Your task to perform on an android device: toggle notification dots Image 0: 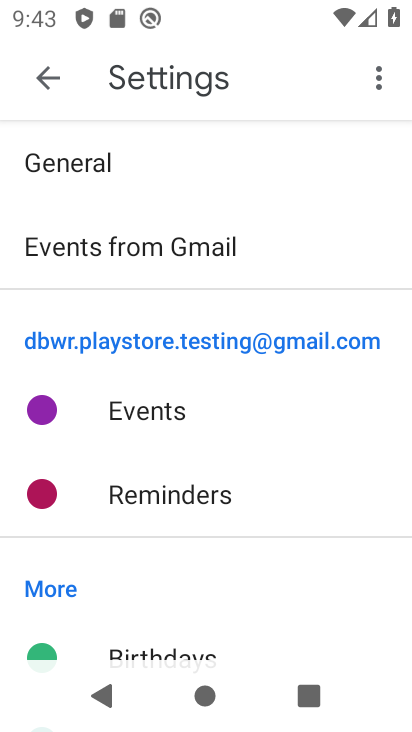
Step 0: press home button
Your task to perform on an android device: toggle notification dots Image 1: 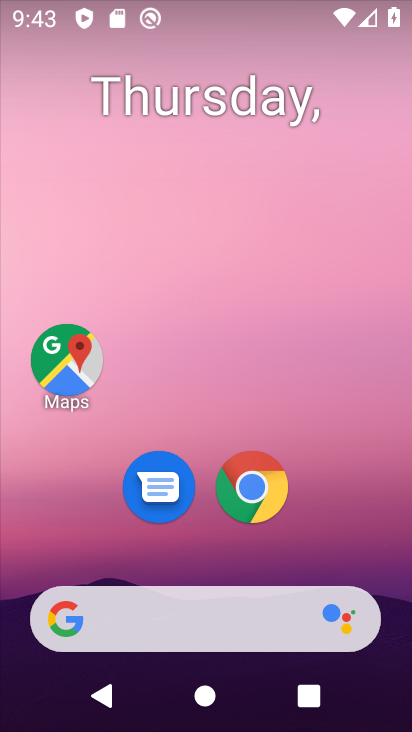
Step 1: drag from (328, 524) to (77, 123)
Your task to perform on an android device: toggle notification dots Image 2: 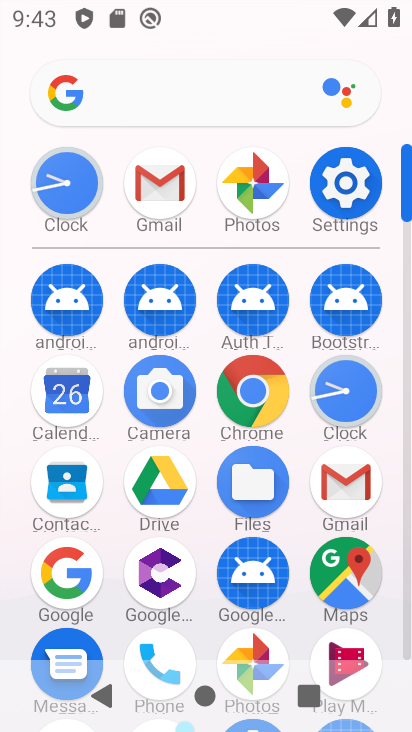
Step 2: click (349, 178)
Your task to perform on an android device: toggle notification dots Image 3: 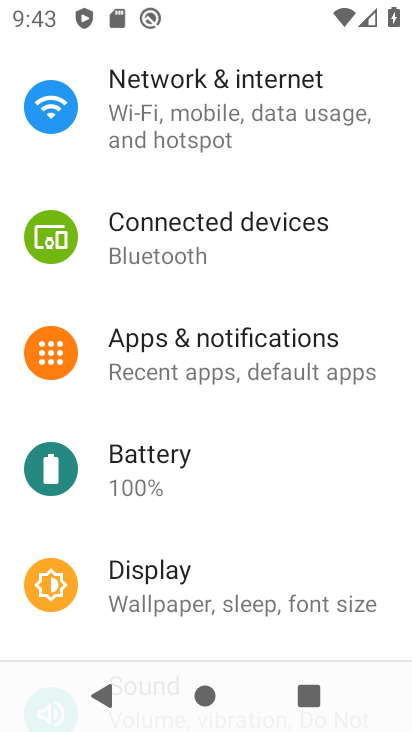
Step 3: click (214, 361)
Your task to perform on an android device: toggle notification dots Image 4: 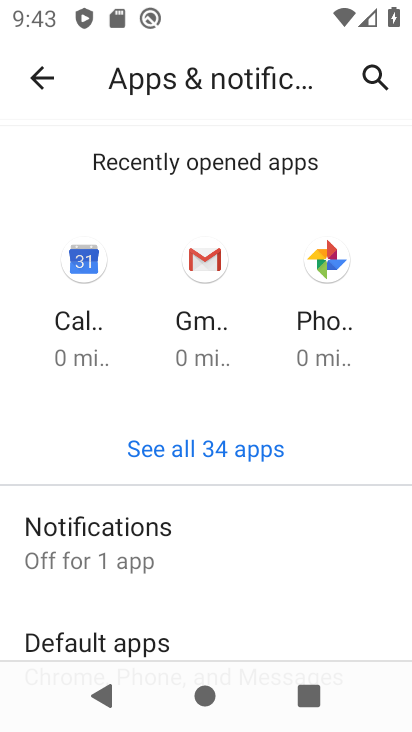
Step 4: drag from (193, 586) to (180, 325)
Your task to perform on an android device: toggle notification dots Image 5: 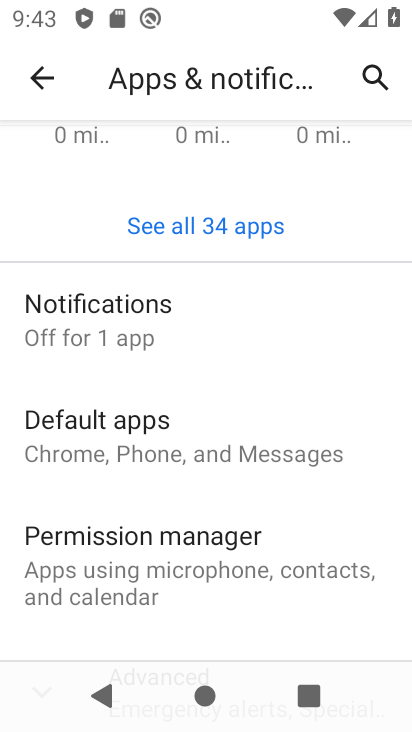
Step 5: click (125, 337)
Your task to perform on an android device: toggle notification dots Image 6: 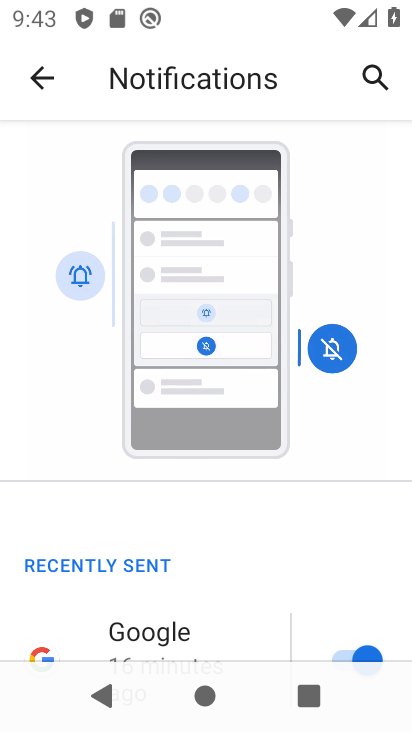
Step 6: drag from (106, 576) to (55, 182)
Your task to perform on an android device: toggle notification dots Image 7: 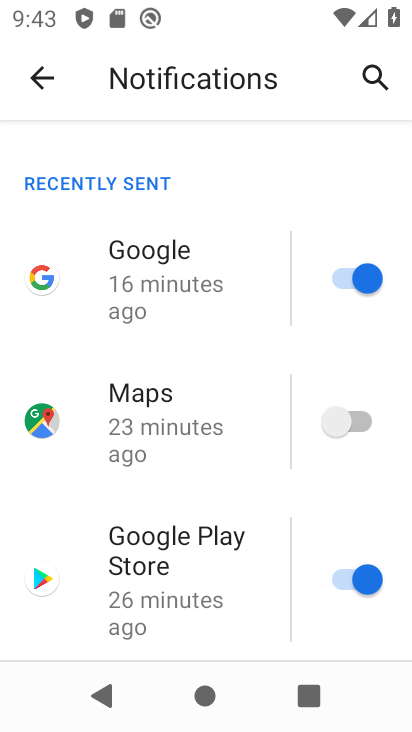
Step 7: drag from (158, 581) to (170, 140)
Your task to perform on an android device: toggle notification dots Image 8: 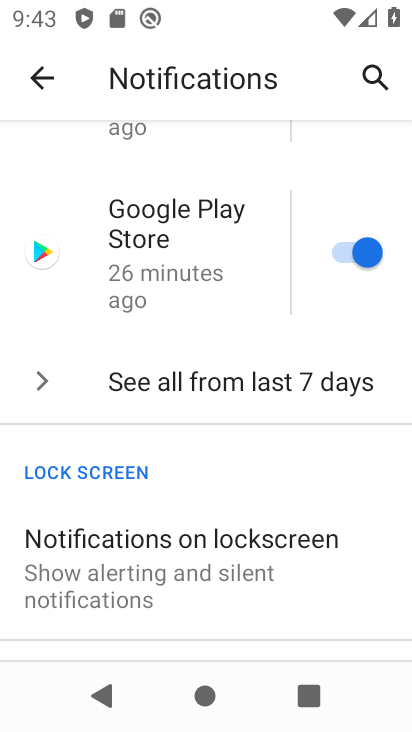
Step 8: drag from (183, 573) to (145, 187)
Your task to perform on an android device: toggle notification dots Image 9: 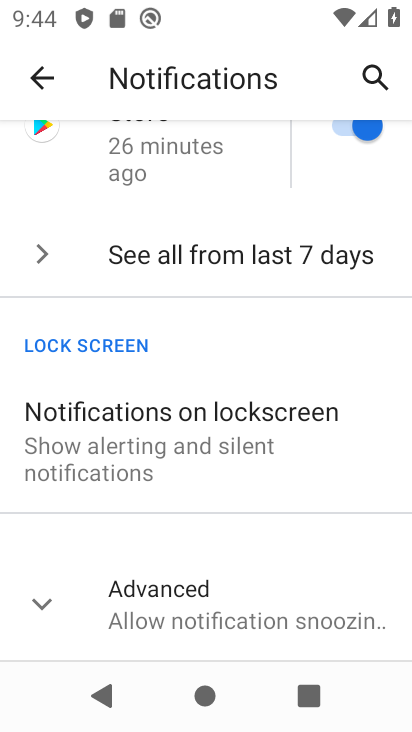
Step 9: click (136, 596)
Your task to perform on an android device: toggle notification dots Image 10: 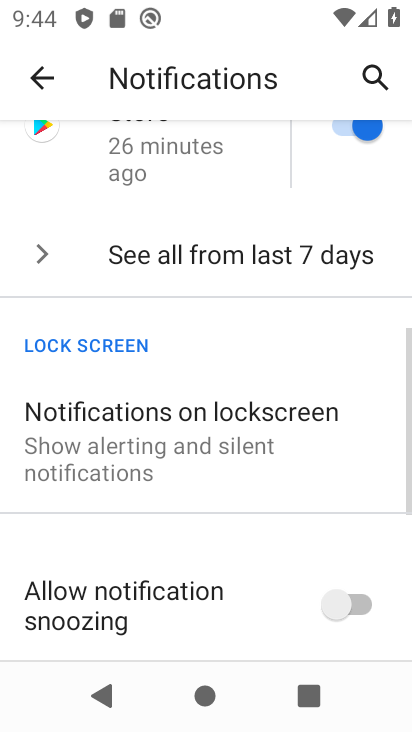
Step 10: drag from (136, 596) to (109, 128)
Your task to perform on an android device: toggle notification dots Image 11: 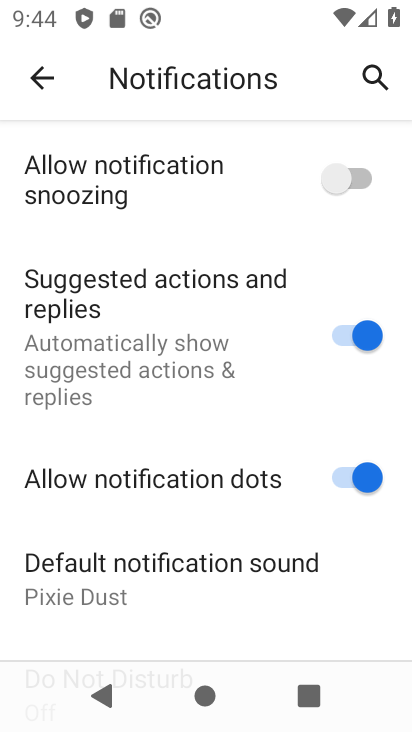
Step 11: click (339, 484)
Your task to perform on an android device: toggle notification dots Image 12: 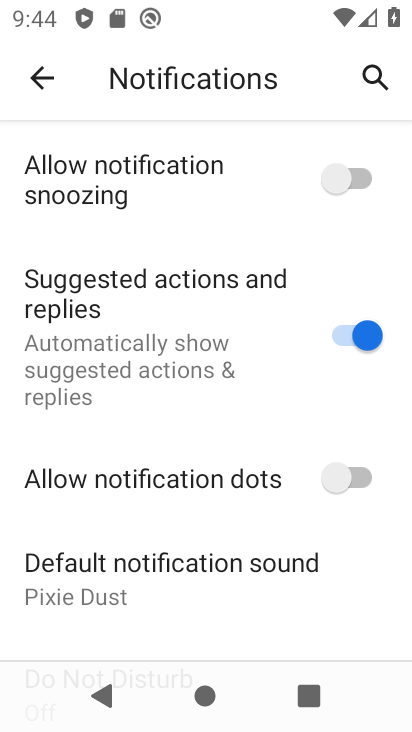
Step 12: task complete